Your task to perform on an android device: turn off smart reply in the gmail app Image 0: 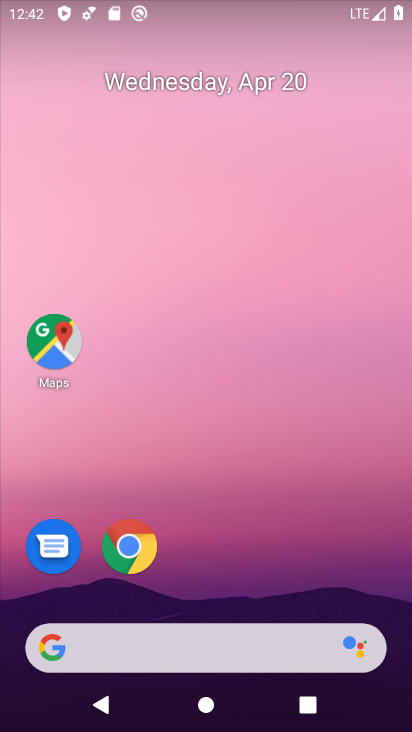
Step 0: drag from (207, 592) to (299, 159)
Your task to perform on an android device: turn off smart reply in the gmail app Image 1: 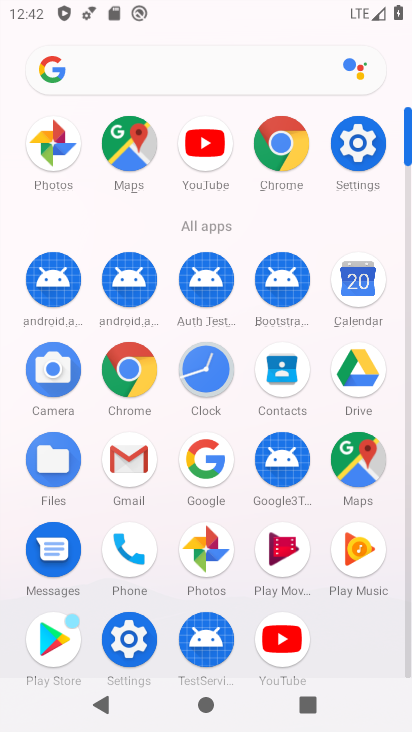
Step 1: click (125, 458)
Your task to perform on an android device: turn off smart reply in the gmail app Image 2: 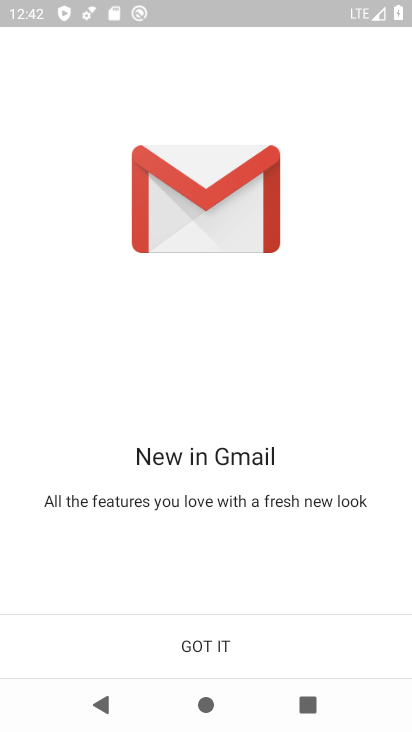
Step 2: click (221, 656)
Your task to perform on an android device: turn off smart reply in the gmail app Image 3: 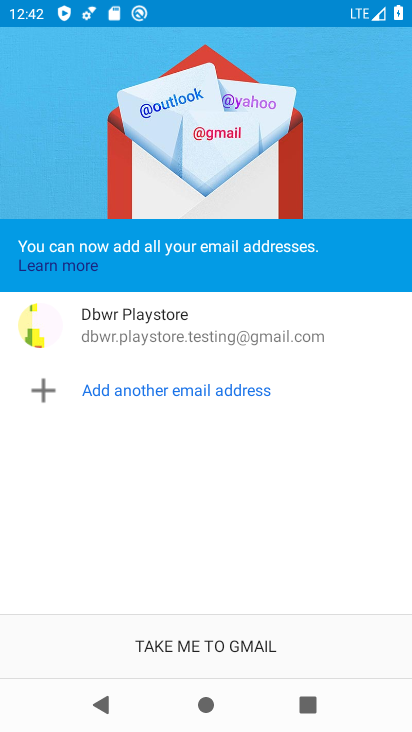
Step 3: click (263, 646)
Your task to perform on an android device: turn off smart reply in the gmail app Image 4: 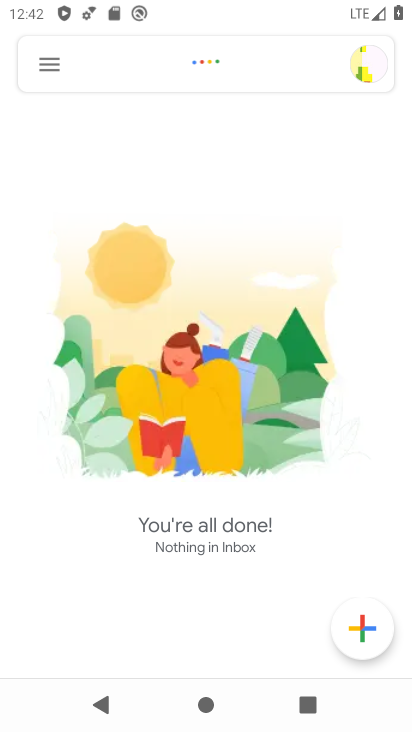
Step 4: click (46, 61)
Your task to perform on an android device: turn off smart reply in the gmail app Image 5: 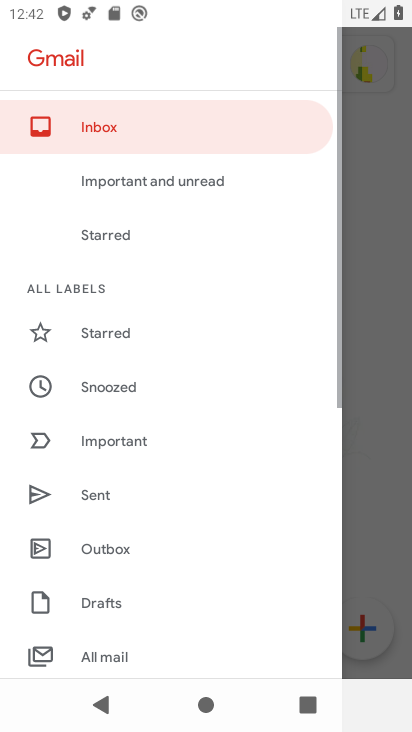
Step 5: drag from (151, 516) to (247, 189)
Your task to perform on an android device: turn off smart reply in the gmail app Image 6: 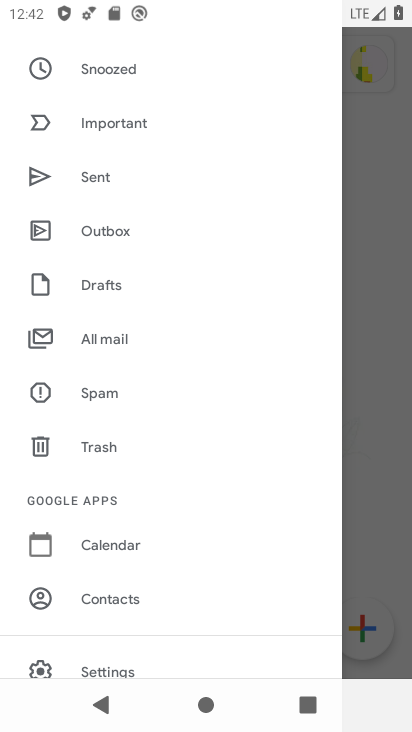
Step 6: click (154, 673)
Your task to perform on an android device: turn off smart reply in the gmail app Image 7: 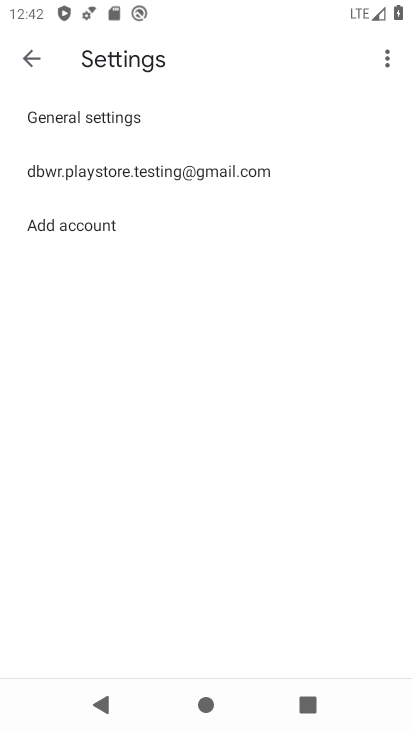
Step 7: click (213, 180)
Your task to perform on an android device: turn off smart reply in the gmail app Image 8: 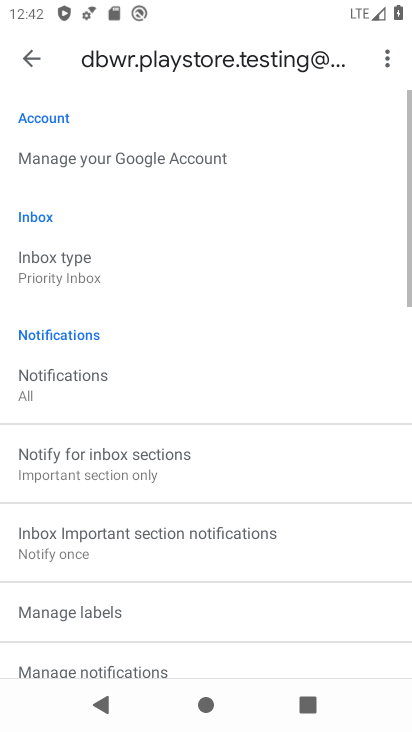
Step 8: drag from (168, 597) to (283, 138)
Your task to perform on an android device: turn off smart reply in the gmail app Image 9: 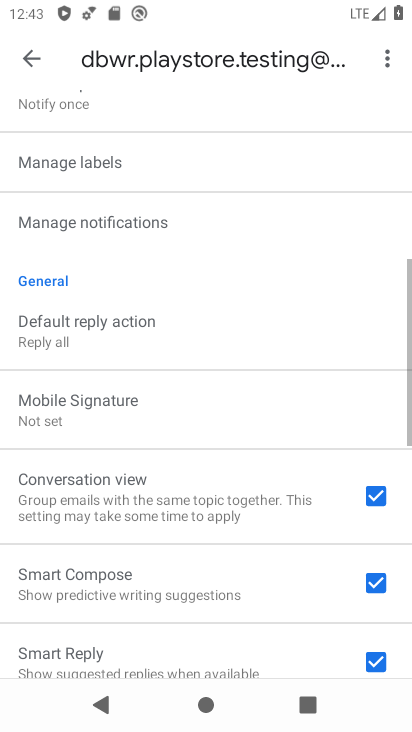
Step 9: drag from (246, 513) to (325, 197)
Your task to perform on an android device: turn off smart reply in the gmail app Image 10: 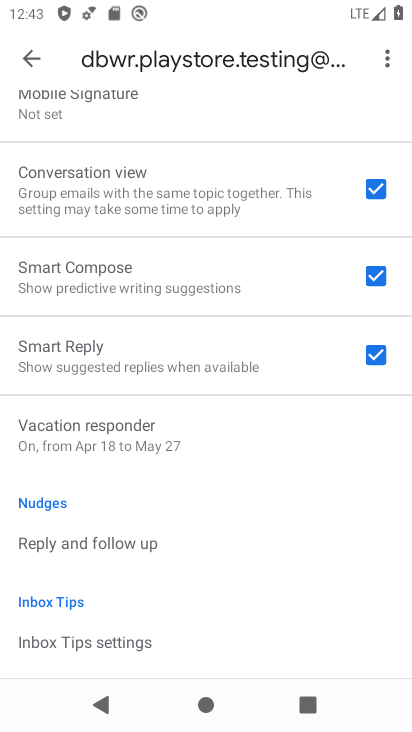
Step 10: click (377, 350)
Your task to perform on an android device: turn off smart reply in the gmail app Image 11: 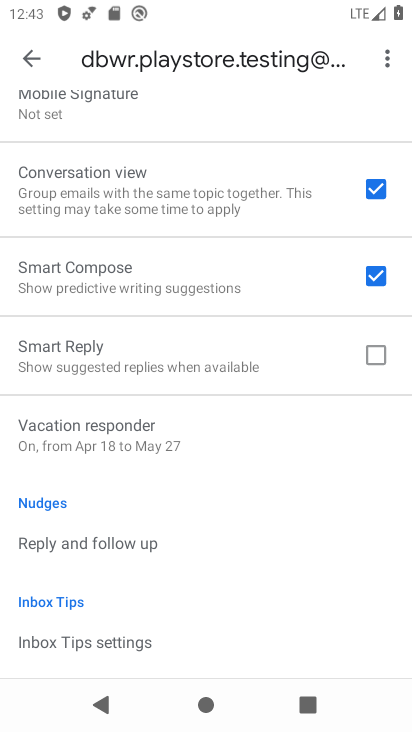
Step 11: task complete